Your task to perform on an android device: read, delete, or share a saved page in the chrome app Image 0: 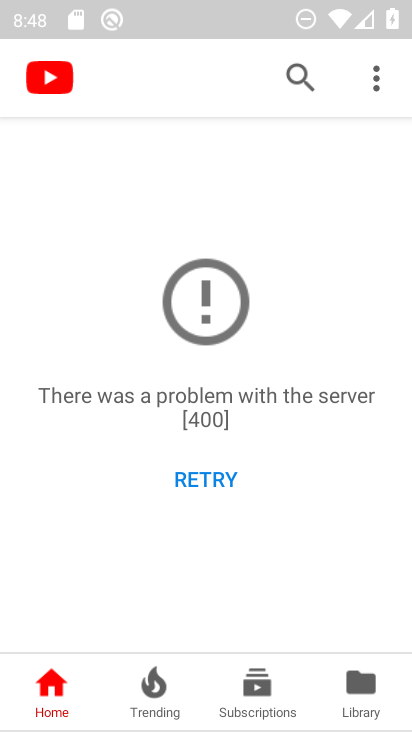
Step 0: press back button
Your task to perform on an android device: read, delete, or share a saved page in the chrome app Image 1: 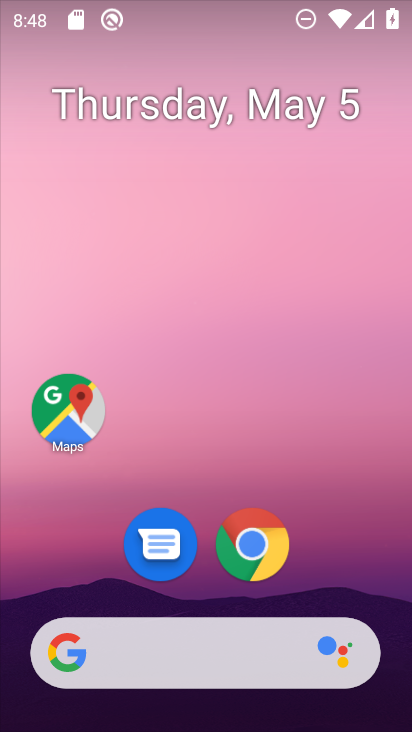
Step 1: click (279, 553)
Your task to perform on an android device: read, delete, or share a saved page in the chrome app Image 2: 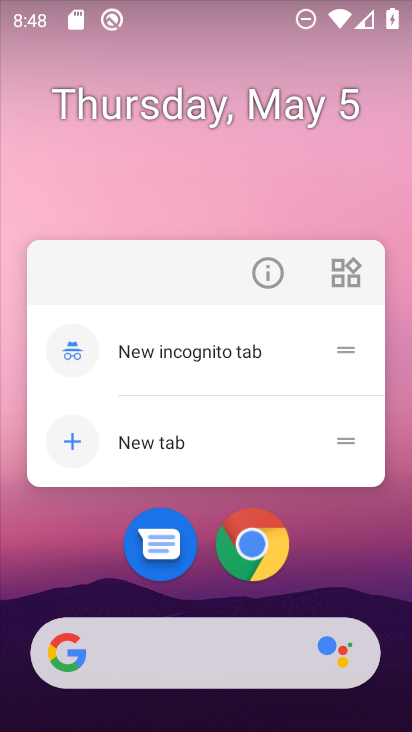
Step 2: click (261, 541)
Your task to perform on an android device: read, delete, or share a saved page in the chrome app Image 3: 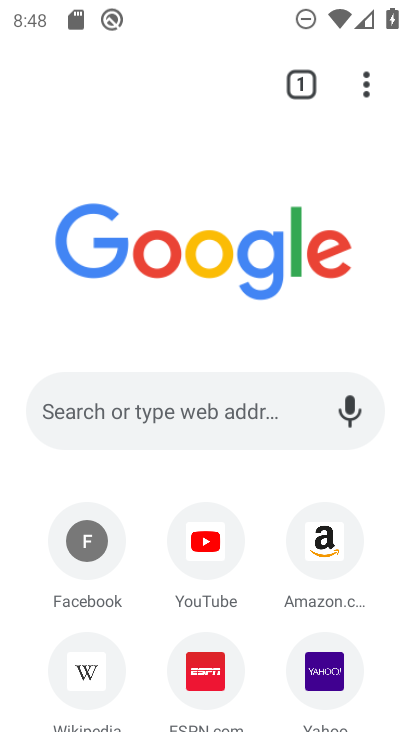
Step 3: drag from (362, 83) to (176, 557)
Your task to perform on an android device: read, delete, or share a saved page in the chrome app Image 4: 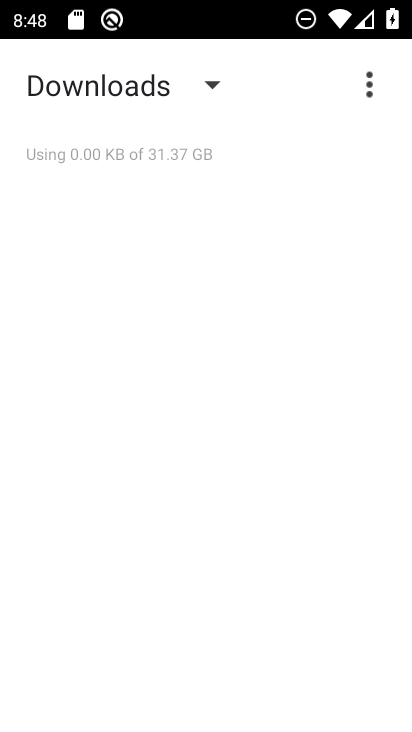
Step 4: click (157, 81)
Your task to perform on an android device: read, delete, or share a saved page in the chrome app Image 5: 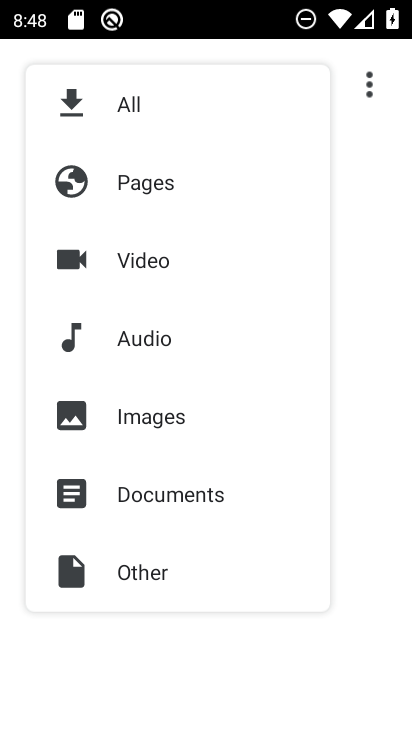
Step 5: click (165, 199)
Your task to perform on an android device: read, delete, or share a saved page in the chrome app Image 6: 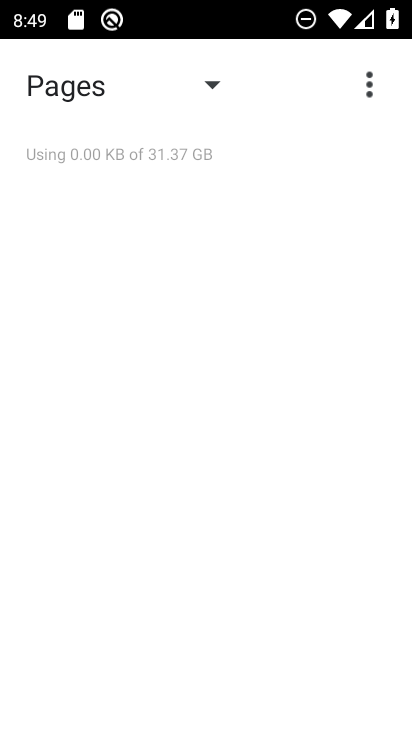
Step 6: task complete